Your task to perform on an android device: allow cookies in the chrome app Image 0: 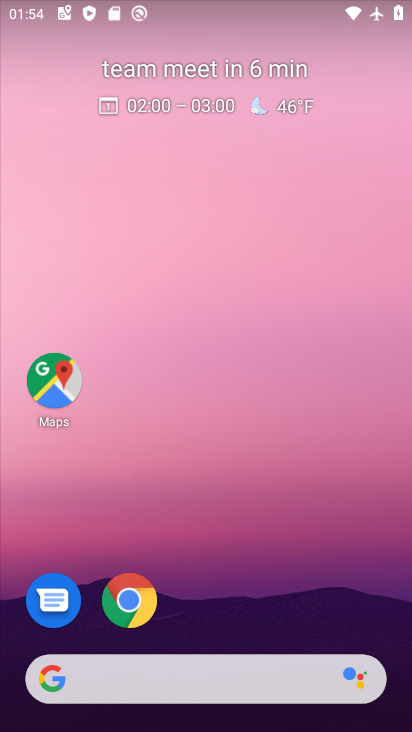
Step 0: drag from (121, 15) to (360, 1)
Your task to perform on an android device: allow cookies in the chrome app Image 1: 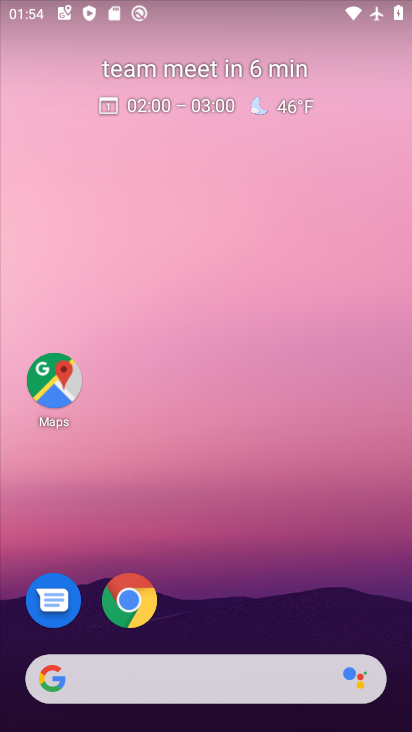
Step 1: click (133, 598)
Your task to perform on an android device: allow cookies in the chrome app Image 2: 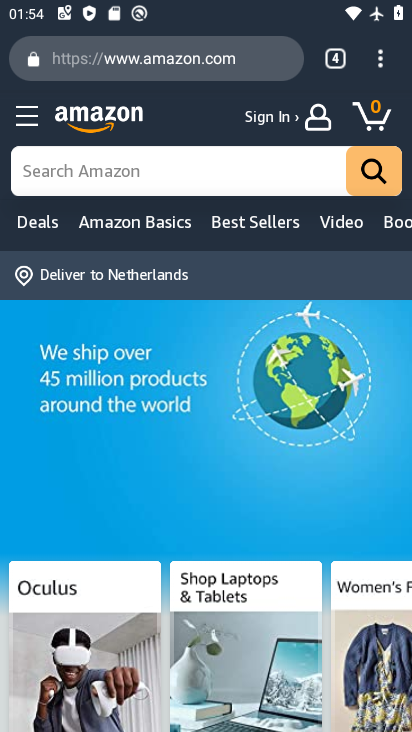
Step 2: click (385, 62)
Your task to perform on an android device: allow cookies in the chrome app Image 3: 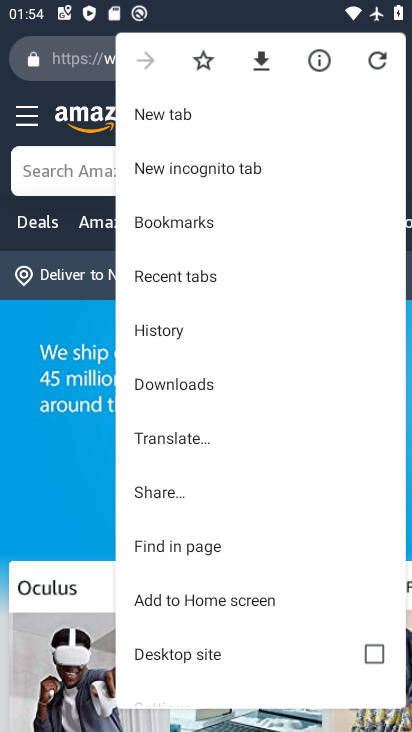
Step 3: drag from (238, 560) to (221, 367)
Your task to perform on an android device: allow cookies in the chrome app Image 4: 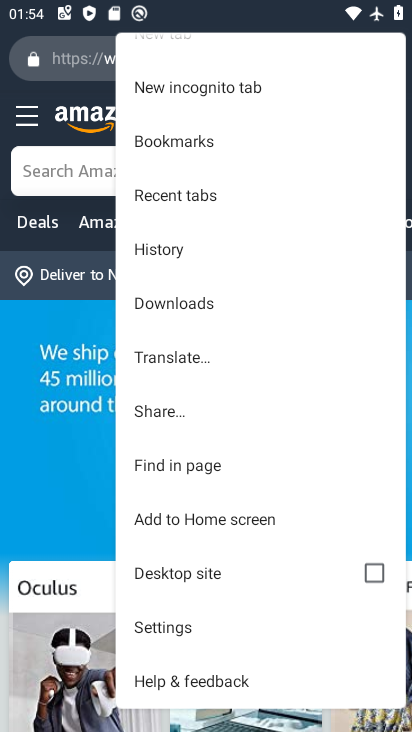
Step 4: click (172, 619)
Your task to perform on an android device: allow cookies in the chrome app Image 5: 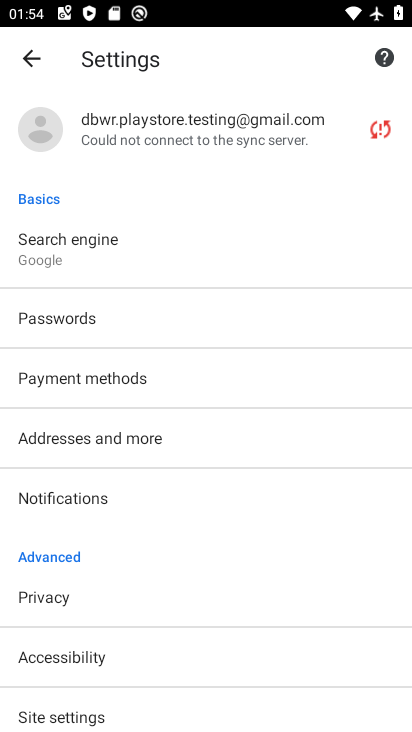
Step 5: click (66, 603)
Your task to perform on an android device: allow cookies in the chrome app Image 6: 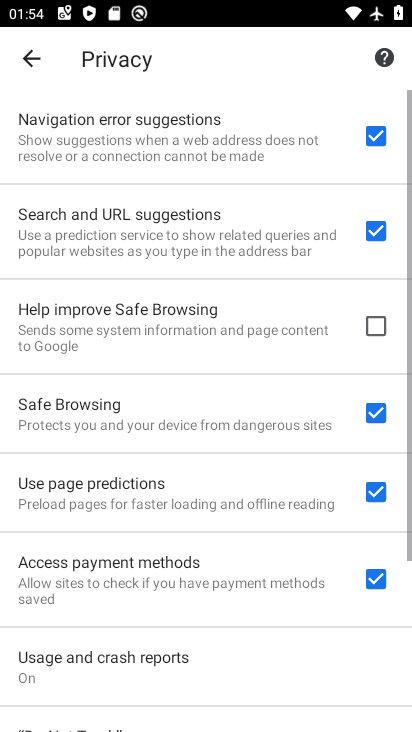
Step 6: drag from (116, 555) to (83, 90)
Your task to perform on an android device: allow cookies in the chrome app Image 7: 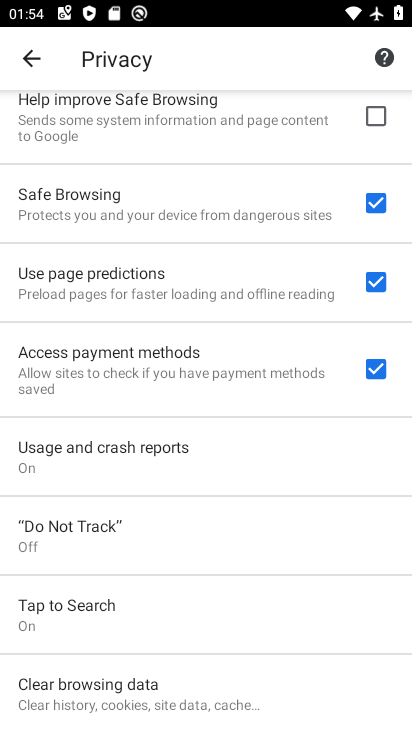
Step 7: click (71, 681)
Your task to perform on an android device: allow cookies in the chrome app Image 8: 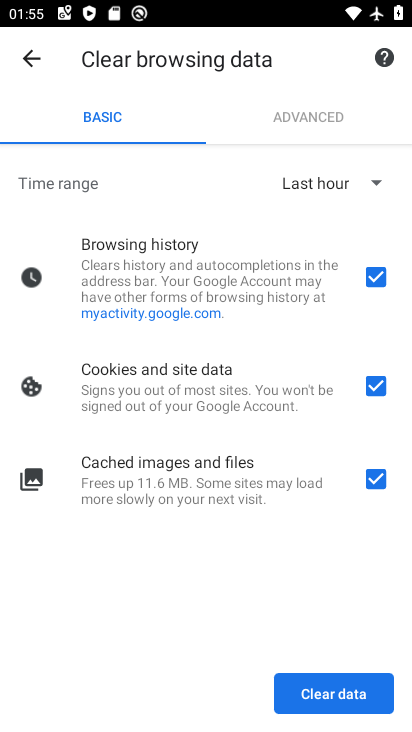
Step 8: click (320, 681)
Your task to perform on an android device: allow cookies in the chrome app Image 9: 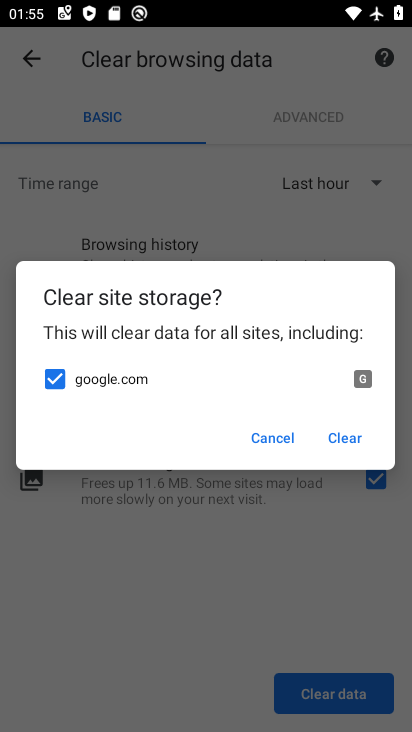
Step 9: click (354, 438)
Your task to perform on an android device: allow cookies in the chrome app Image 10: 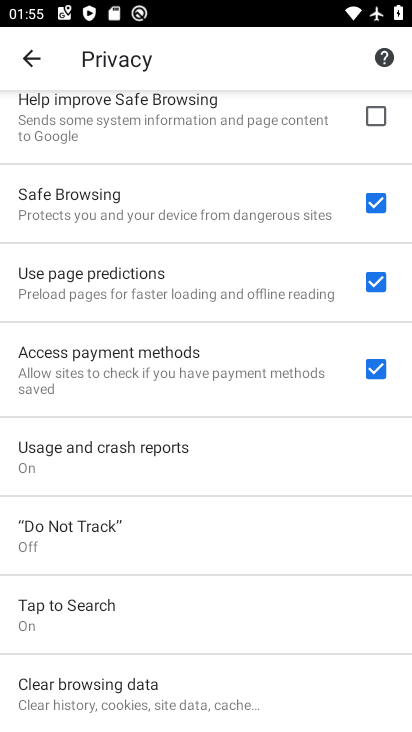
Step 10: task complete